Your task to perform on an android device: Play the last video I watched on Youtube Image 0: 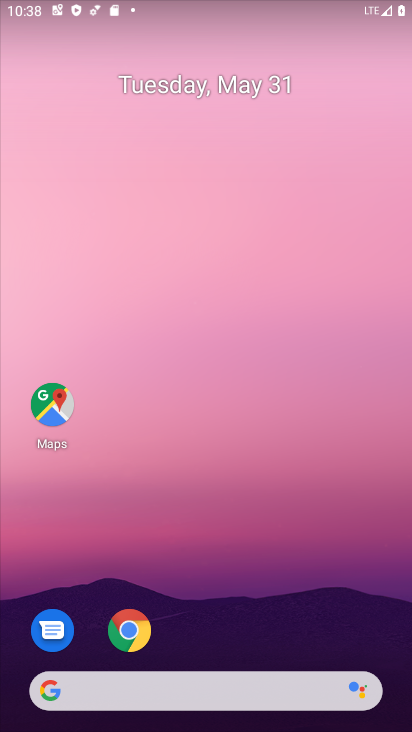
Step 0: drag from (215, 591) to (228, 112)
Your task to perform on an android device: Play the last video I watched on Youtube Image 1: 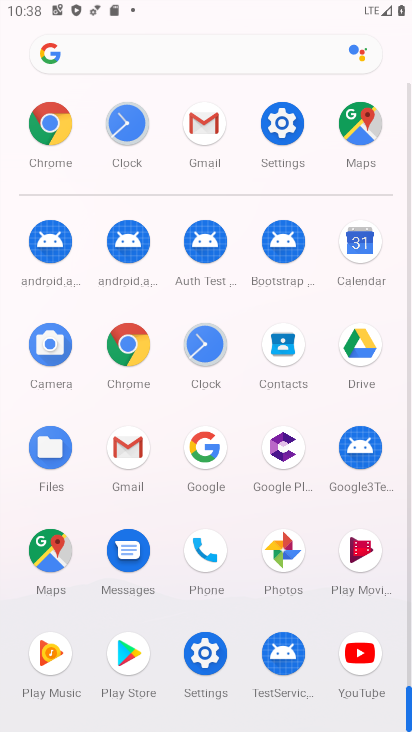
Step 1: click (361, 652)
Your task to perform on an android device: Play the last video I watched on Youtube Image 2: 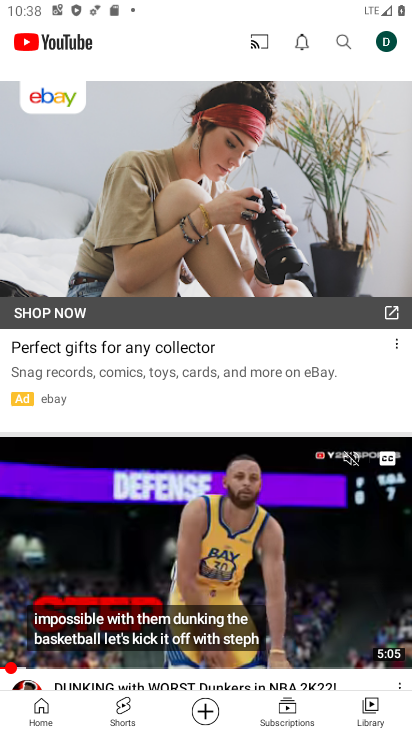
Step 2: click (365, 708)
Your task to perform on an android device: Play the last video I watched on Youtube Image 3: 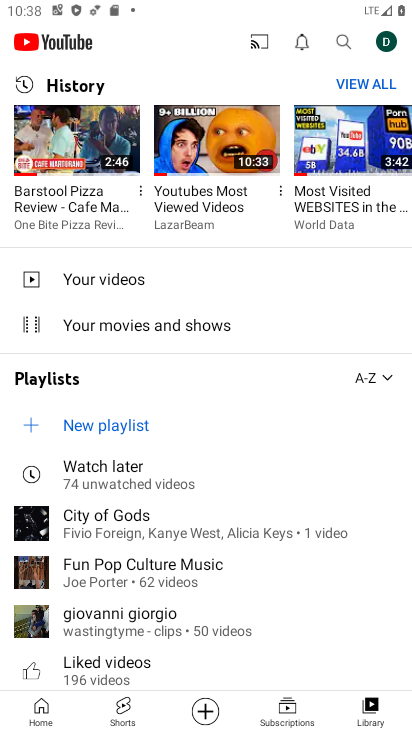
Step 3: click (82, 150)
Your task to perform on an android device: Play the last video I watched on Youtube Image 4: 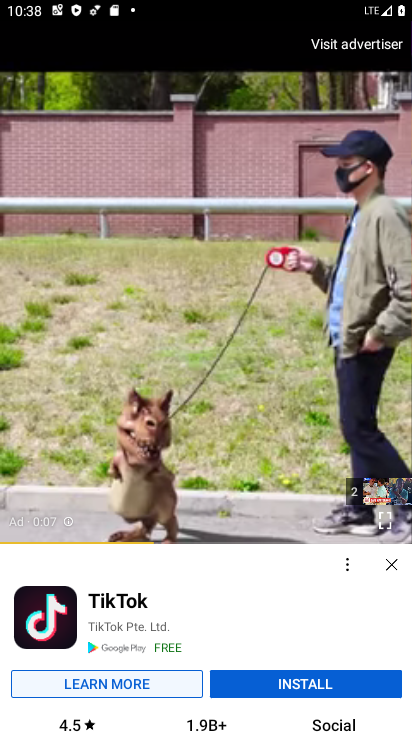
Step 4: task complete